Your task to perform on an android device: show emergency info Image 0: 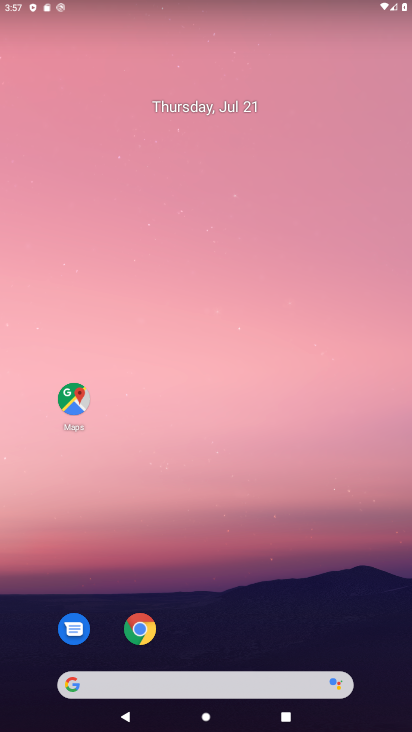
Step 0: drag from (212, 634) to (219, 169)
Your task to perform on an android device: show emergency info Image 1: 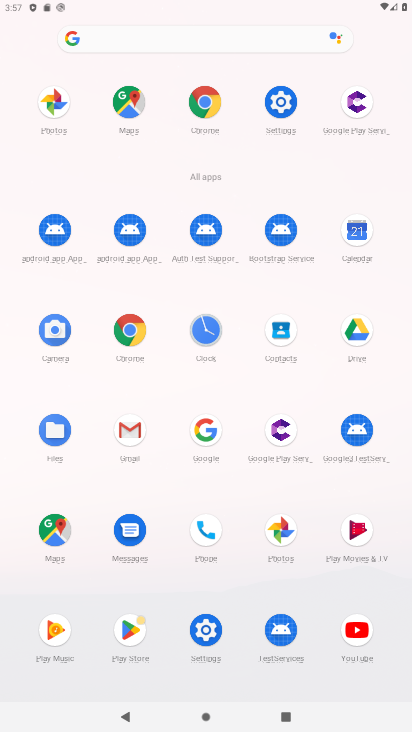
Step 1: click (273, 100)
Your task to perform on an android device: show emergency info Image 2: 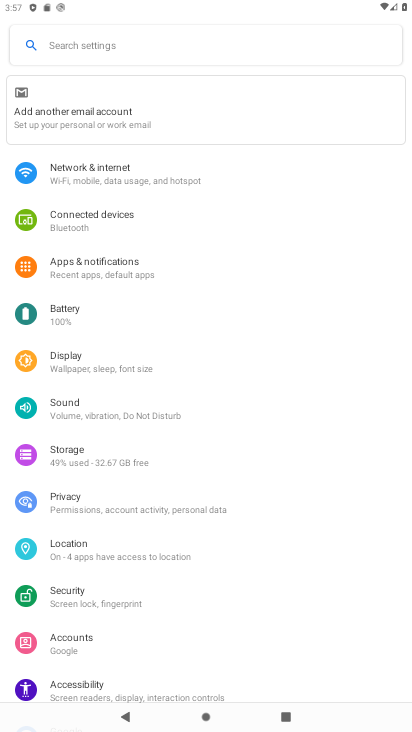
Step 2: drag from (146, 651) to (135, 228)
Your task to perform on an android device: show emergency info Image 3: 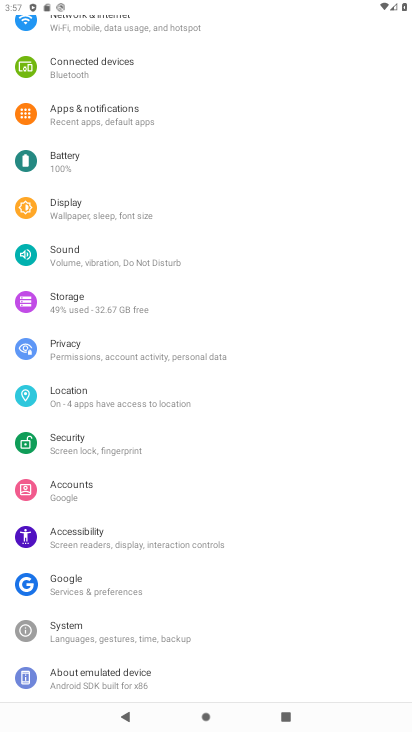
Step 3: click (117, 669)
Your task to perform on an android device: show emergency info Image 4: 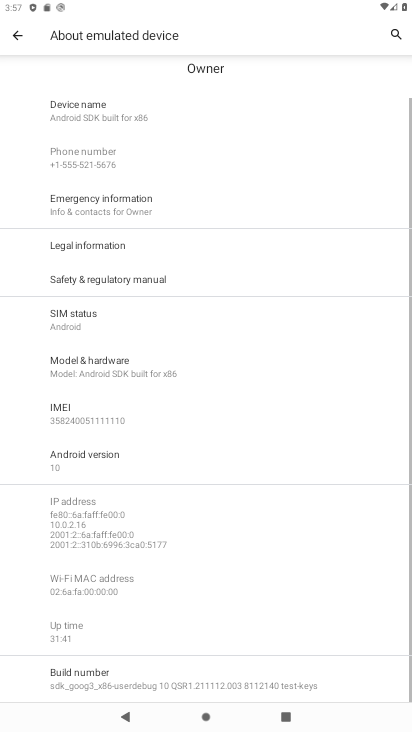
Step 4: click (138, 210)
Your task to perform on an android device: show emergency info Image 5: 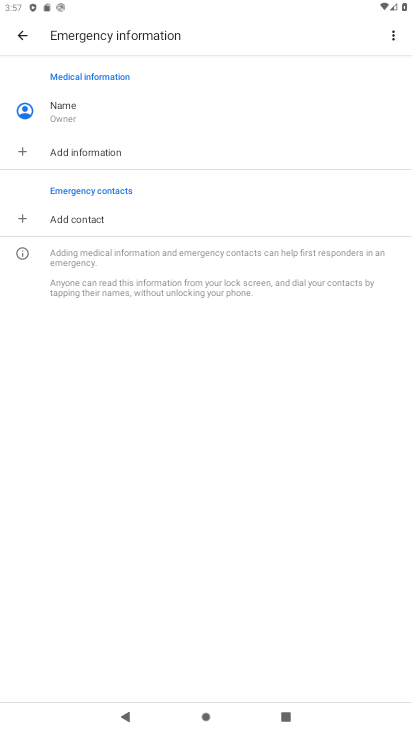
Step 5: task complete